Your task to perform on an android device: turn on the 12-hour format for clock Image 0: 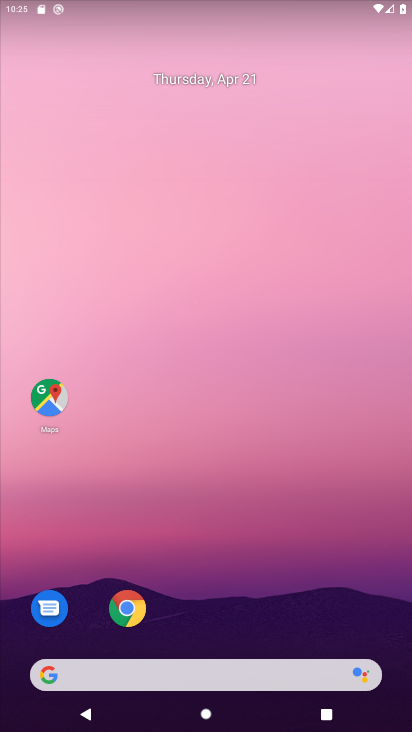
Step 0: drag from (211, 585) to (316, 97)
Your task to perform on an android device: turn on the 12-hour format for clock Image 1: 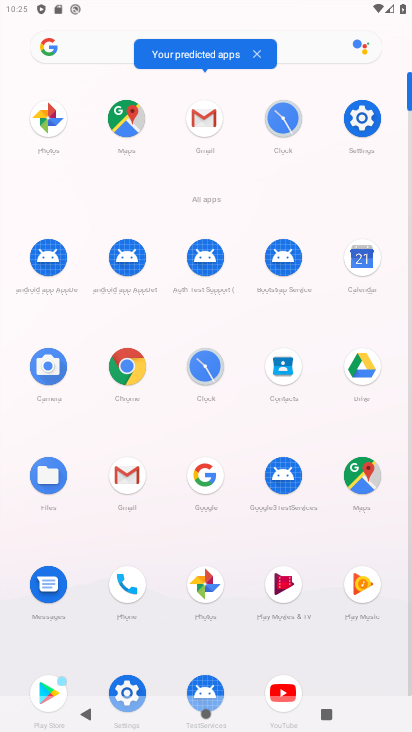
Step 1: click (216, 368)
Your task to perform on an android device: turn on the 12-hour format for clock Image 2: 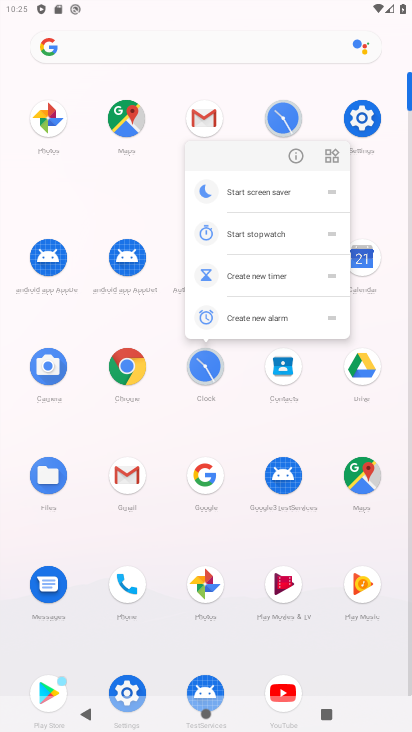
Step 2: click (206, 371)
Your task to perform on an android device: turn on the 12-hour format for clock Image 3: 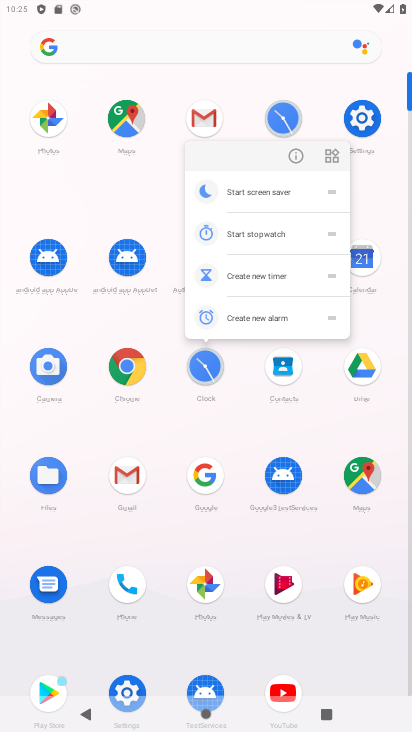
Step 3: click (206, 374)
Your task to perform on an android device: turn on the 12-hour format for clock Image 4: 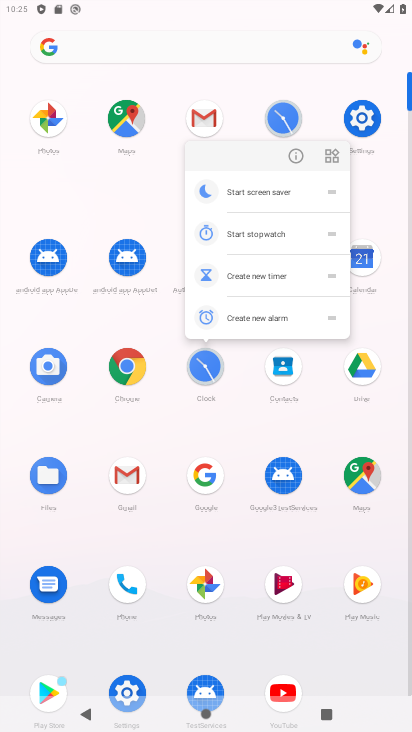
Step 4: click (206, 374)
Your task to perform on an android device: turn on the 12-hour format for clock Image 5: 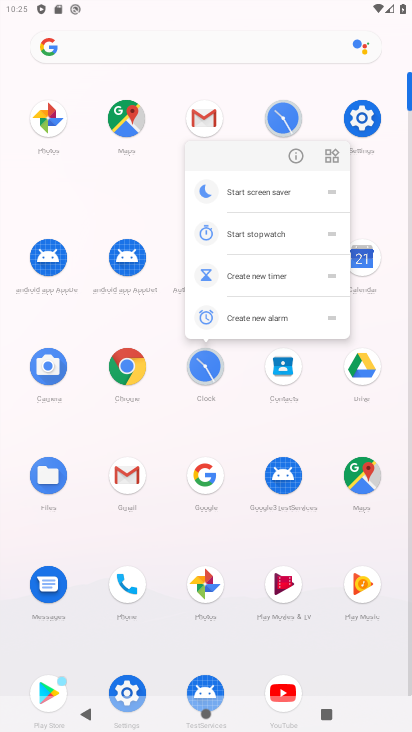
Step 5: click (212, 369)
Your task to perform on an android device: turn on the 12-hour format for clock Image 6: 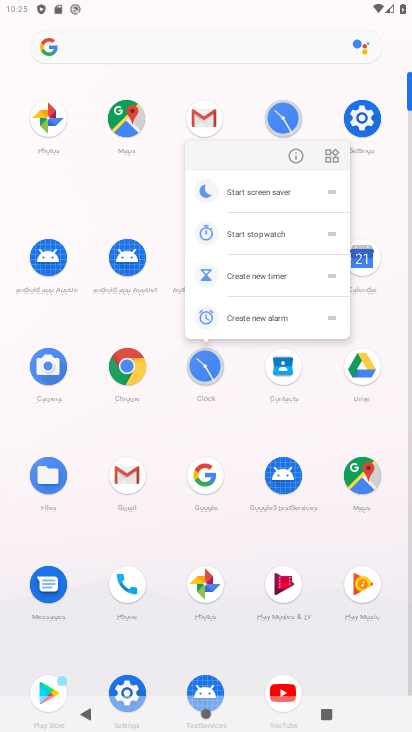
Step 6: click (212, 369)
Your task to perform on an android device: turn on the 12-hour format for clock Image 7: 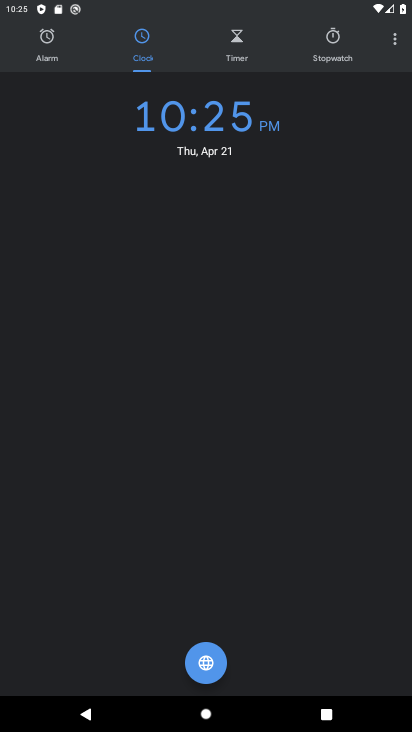
Step 7: click (397, 43)
Your task to perform on an android device: turn on the 12-hour format for clock Image 8: 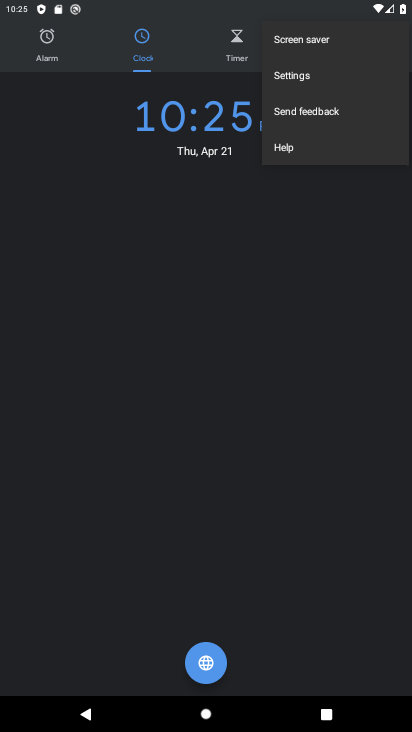
Step 8: click (337, 87)
Your task to perform on an android device: turn on the 12-hour format for clock Image 9: 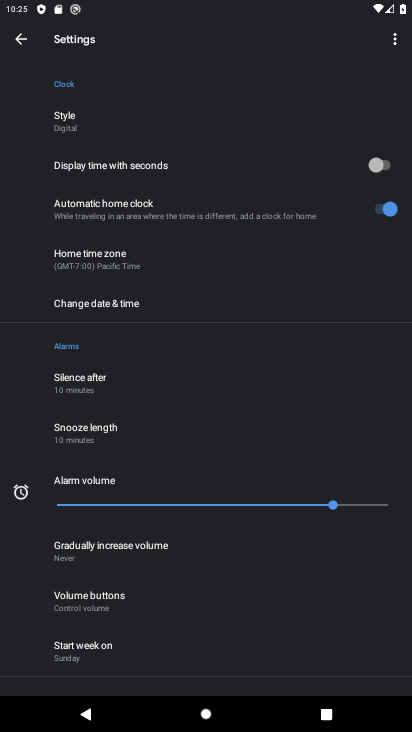
Step 9: click (197, 556)
Your task to perform on an android device: turn on the 12-hour format for clock Image 10: 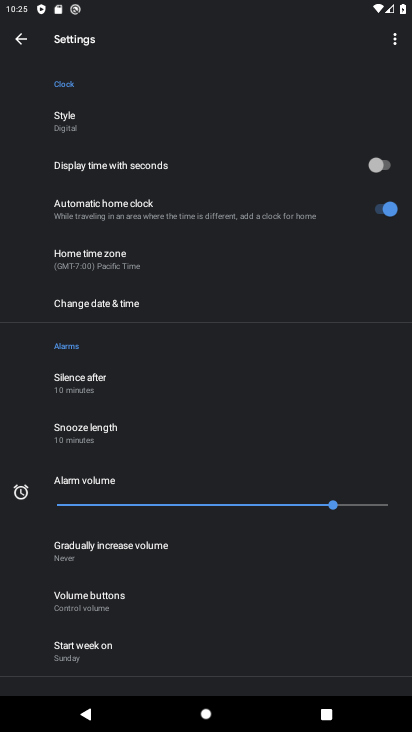
Step 10: click (220, 310)
Your task to perform on an android device: turn on the 12-hour format for clock Image 11: 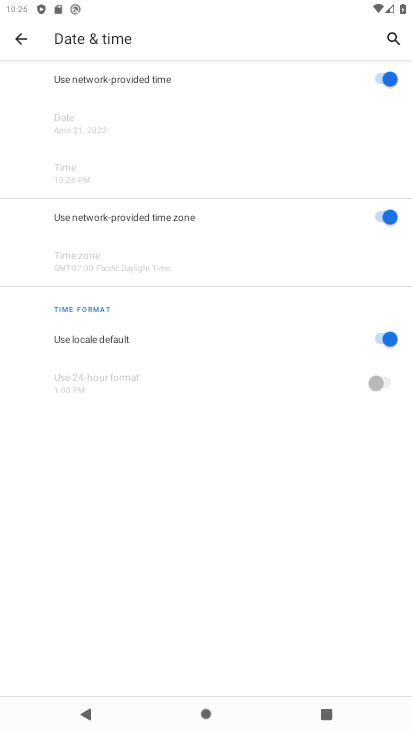
Step 11: task complete